Your task to perform on an android device: Go to eBay Image 0: 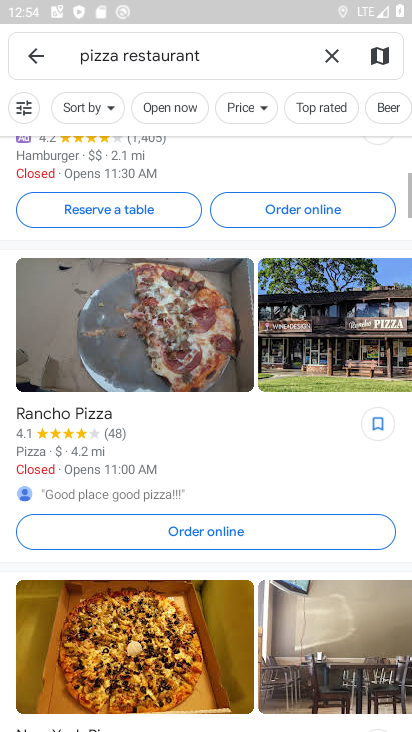
Step 0: press home button
Your task to perform on an android device: Go to eBay Image 1: 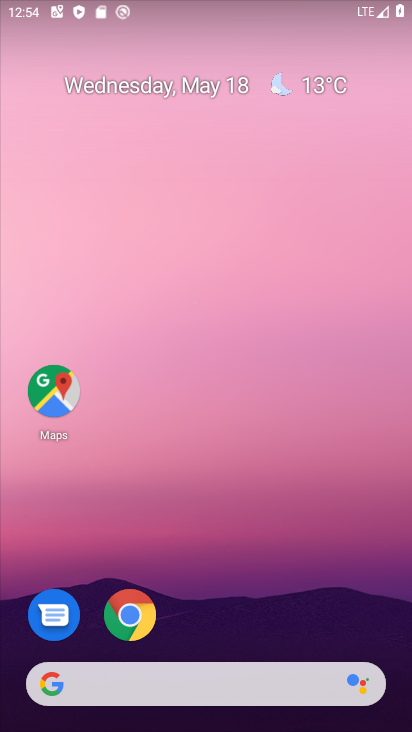
Step 1: drag from (195, 682) to (332, 246)
Your task to perform on an android device: Go to eBay Image 2: 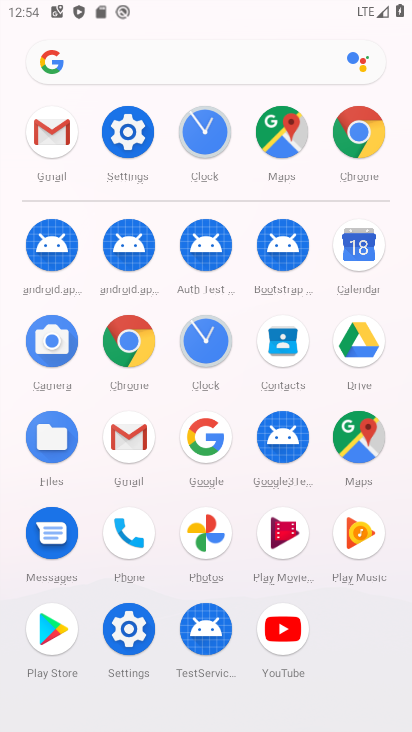
Step 2: click (364, 146)
Your task to perform on an android device: Go to eBay Image 3: 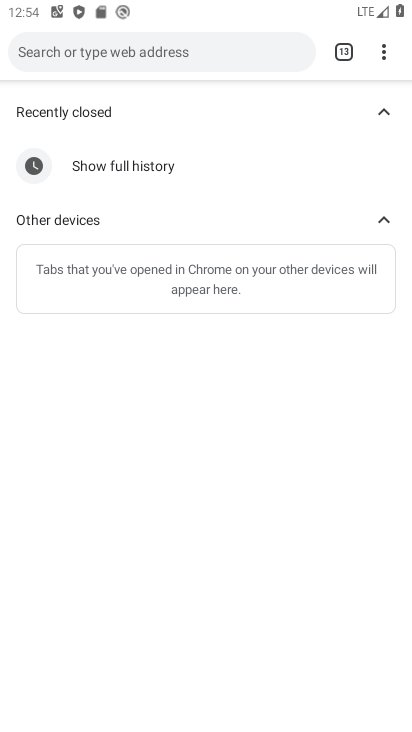
Step 3: drag from (387, 52) to (301, 97)
Your task to perform on an android device: Go to eBay Image 4: 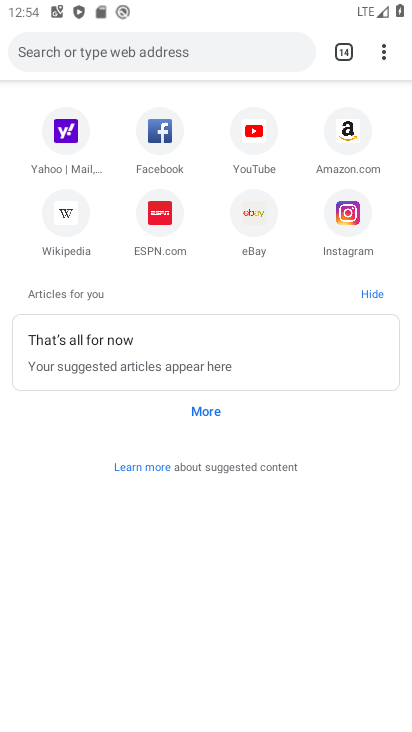
Step 4: click (253, 209)
Your task to perform on an android device: Go to eBay Image 5: 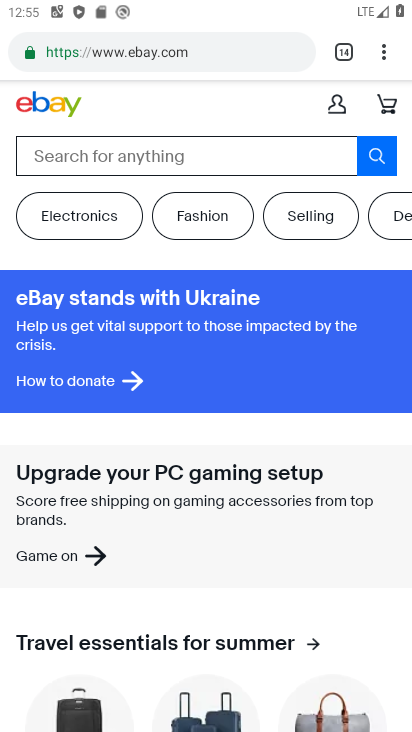
Step 5: task complete